Your task to perform on an android device: Go to location settings Image 0: 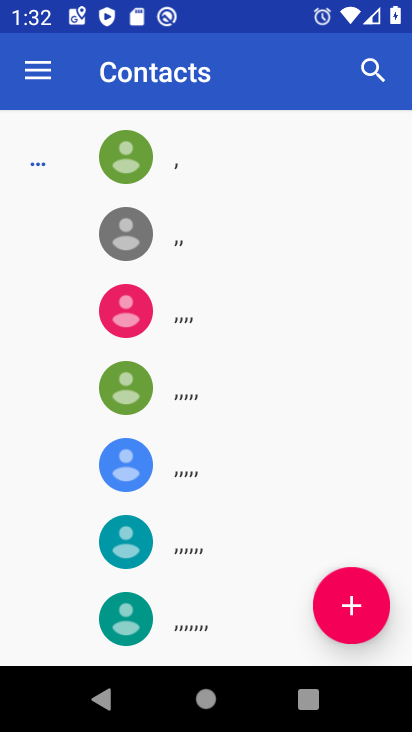
Step 0: press home button
Your task to perform on an android device: Go to location settings Image 1: 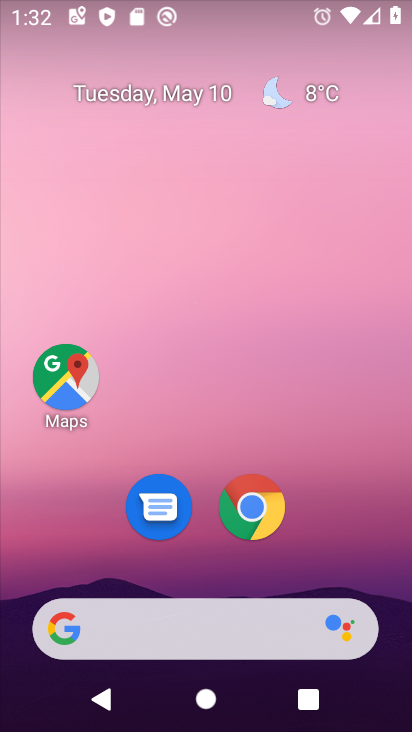
Step 1: drag from (232, 709) to (252, 110)
Your task to perform on an android device: Go to location settings Image 2: 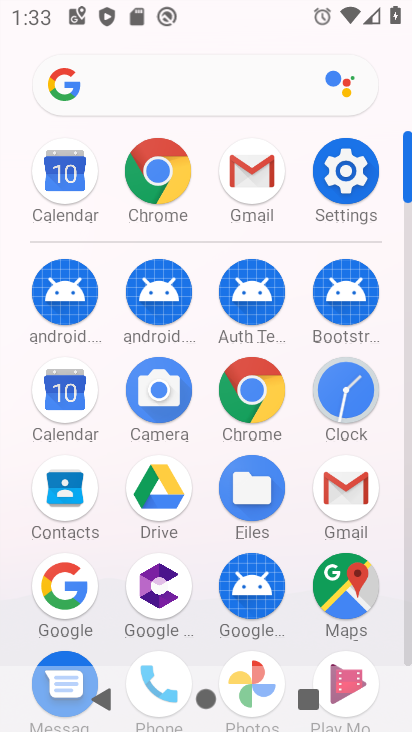
Step 2: click (348, 165)
Your task to perform on an android device: Go to location settings Image 3: 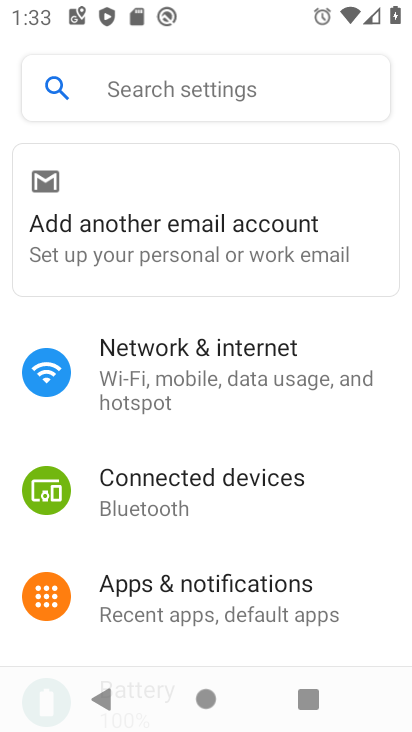
Step 3: drag from (185, 644) to (219, 290)
Your task to perform on an android device: Go to location settings Image 4: 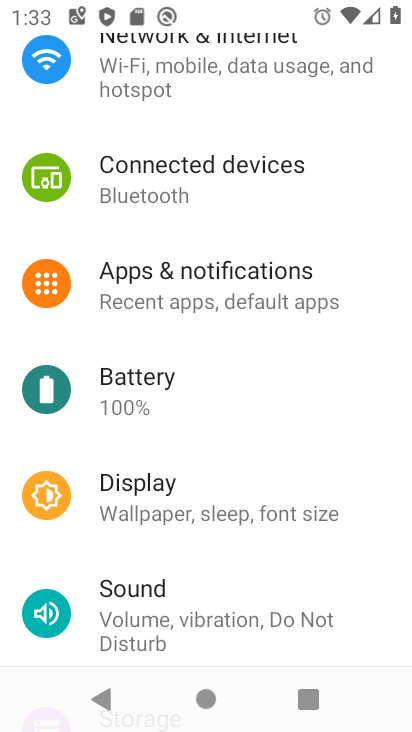
Step 4: drag from (218, 643) to (230, 185)
Your task to perform on an android device: Go to location settings Image 5: 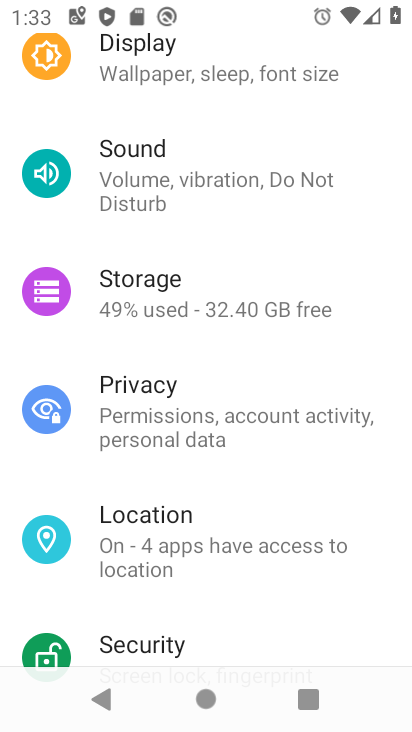
Step 5: click (165, 531)
Your task to perform on an android device: Go to location settings Image 6: 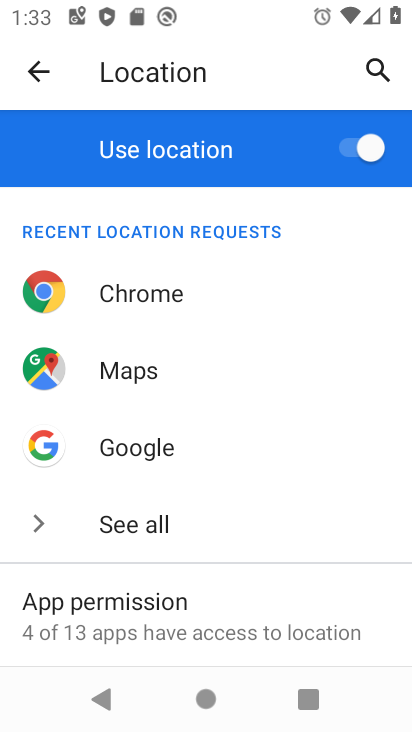
Step 6: task complete